Your task to perform on an android device: turn off javascript in the chrome app Image 0: 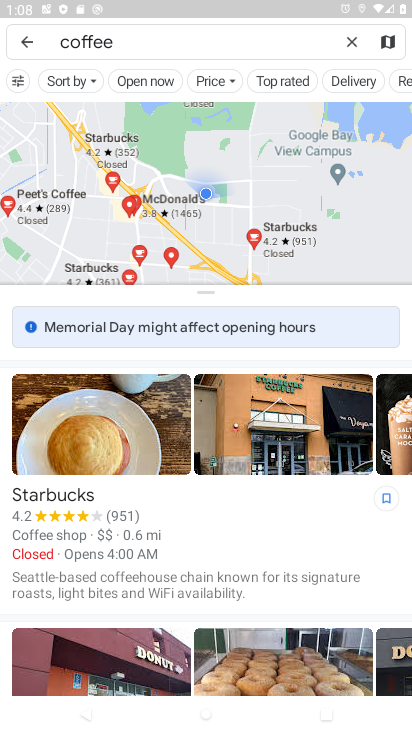
Step 0: press home button
Your task to perform on an android device: turn off javascript in the chrome app Image 1: 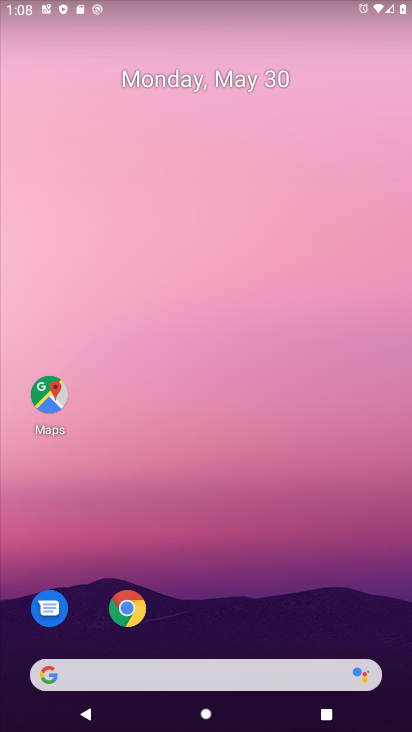
Step 1: click (128, 616)
Your task to perform on an android device: turn off javascript in the chrome app Image 2: 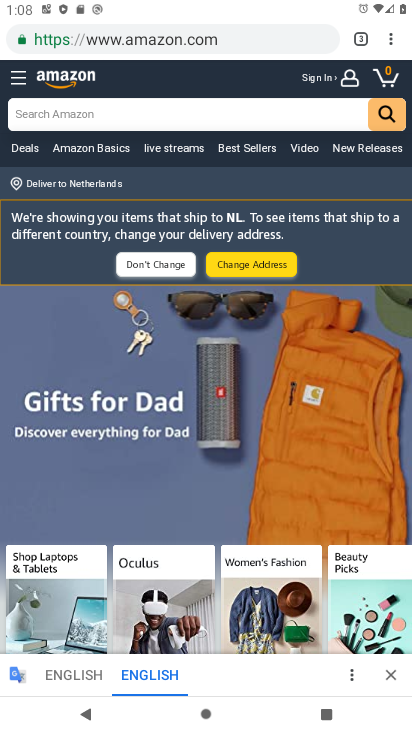
Step 2: click (387, 43)
Your task to perform on an android device: turn off javascript in the chrome app Image 3: 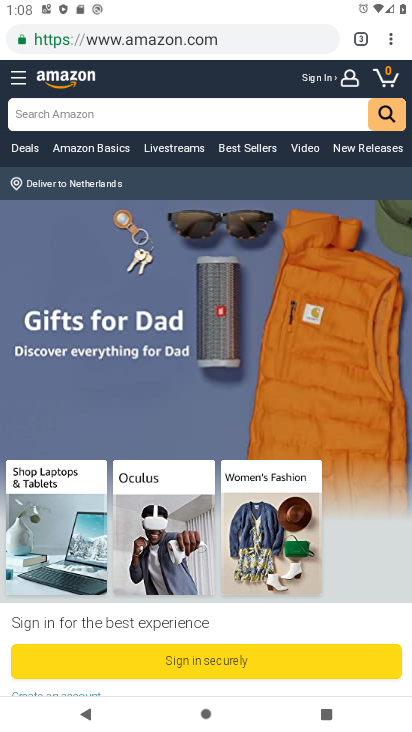
Step 3: click (394, 40)
Your task to perform on an android device: turn off javascript in the chrome app Image 4: 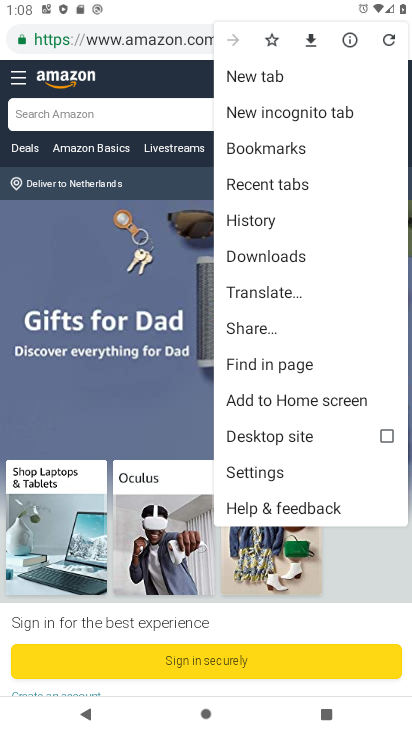
Step 4: click (248, 466)
Your task to perform on an android device: turn off javascript in the chrome app Image 5: 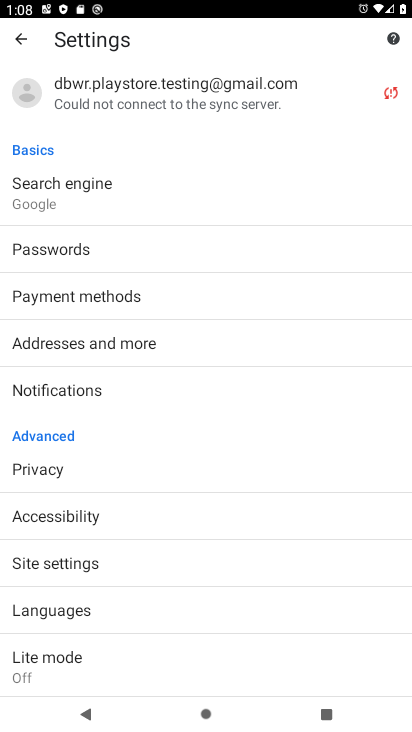
Step 5: click (38, 569)
Your task to perform on an android device: turn off javascript in the chrome app Image 6: 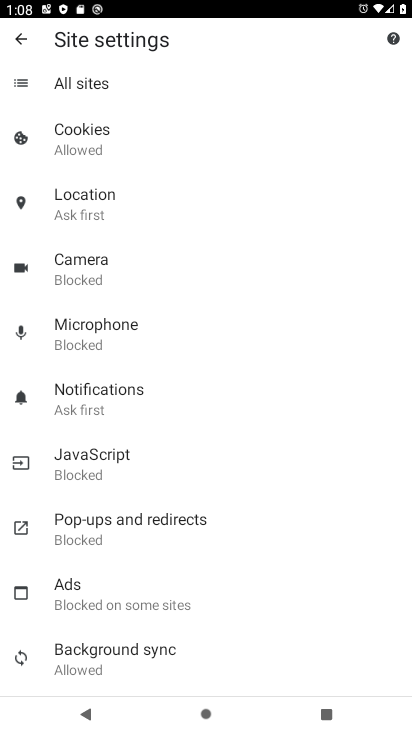
Step 6: click (141, 494)
Your task to perform on an android device: turn off javascript in the chrome app Image 7: 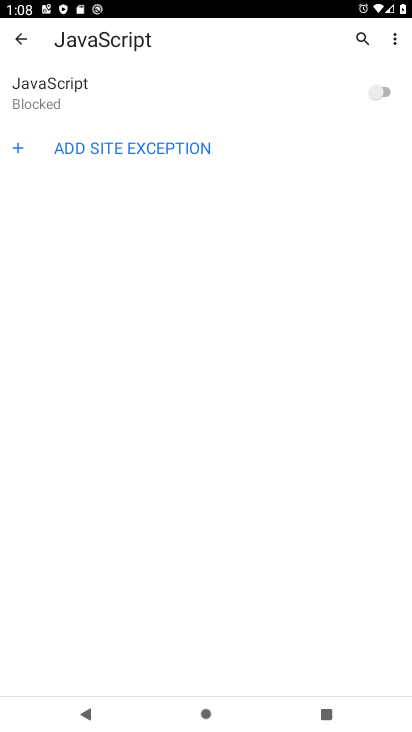
Step 7: task complete